Your task to perform on an android device: turn off location Image 0: 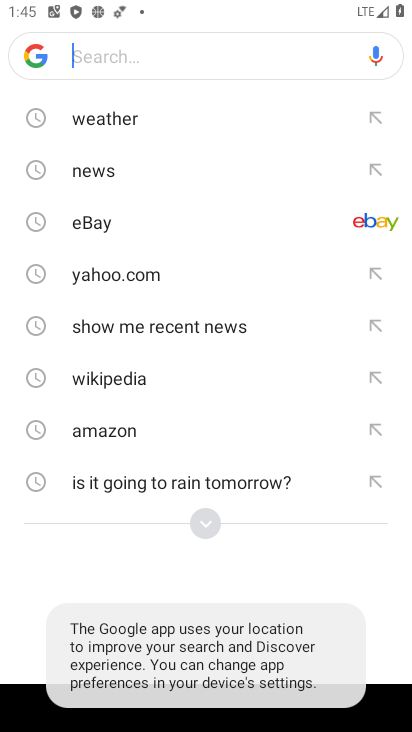
Step 0: press back button
Your task to perform on an android device: turn off location Image 1: 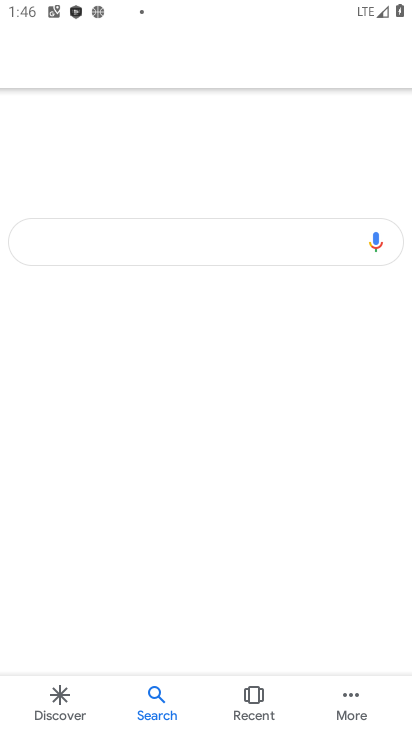
Step 1: press back button
Your task to perform on an android device: turn off location Image 2: 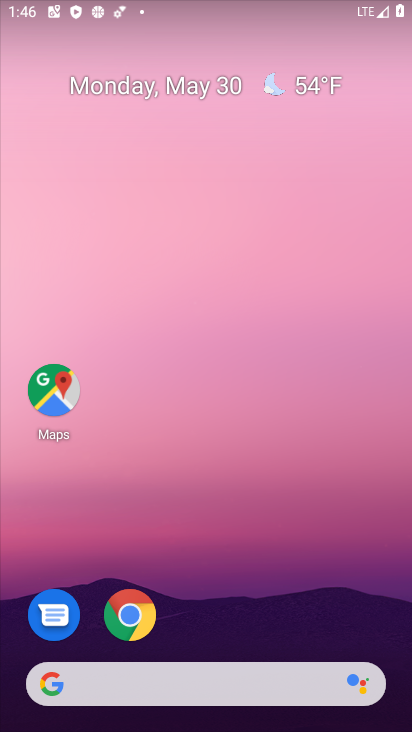
Step 2: drag from (293, 628) to (322, 54)
Your task to perform on an android device: turn off location Image 3: 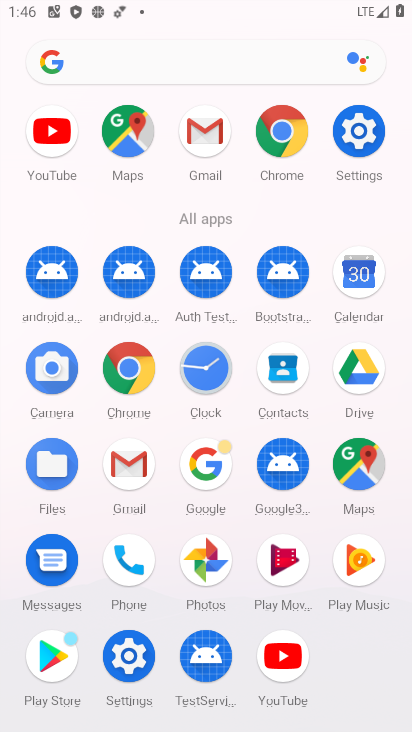
Step 3: click (356, 155)
Your task to perform on an android device: turn off location Image 4: 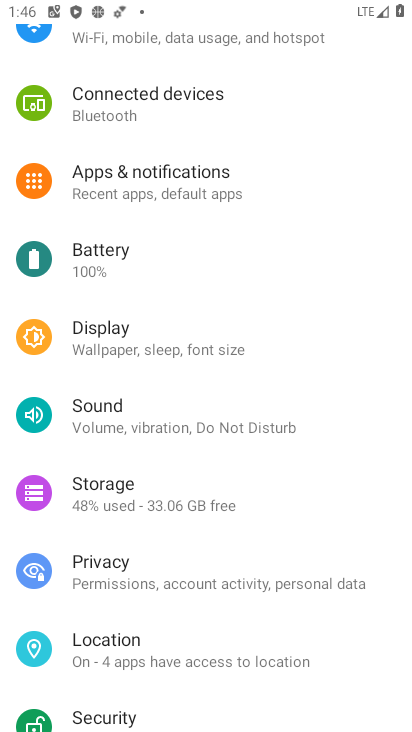
Step 4: click (168, 647)
Your task to perform on an android device: turn off location Image 5: 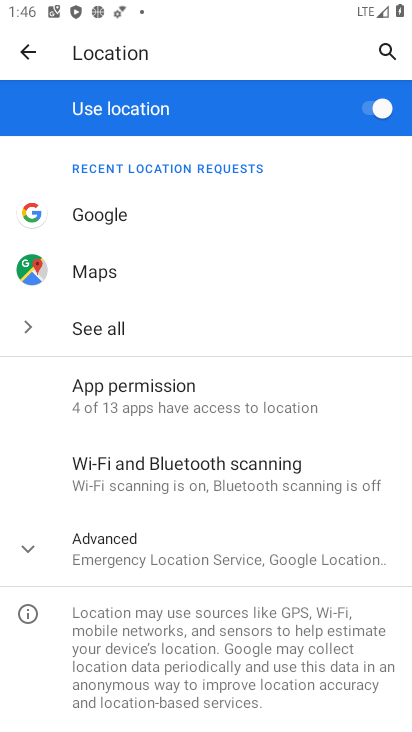
Step 5: click (373, 104)
Your task to perform on an android device: turn off location Image 6: 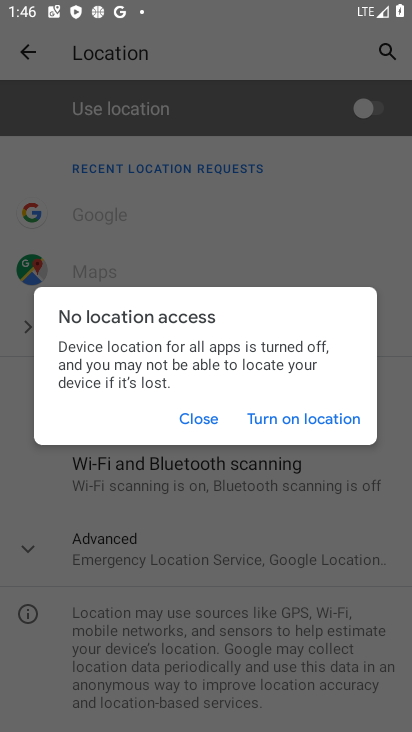
Step 6: click (190, 421)
Your task to perform on an android device: turn off location Image 7: 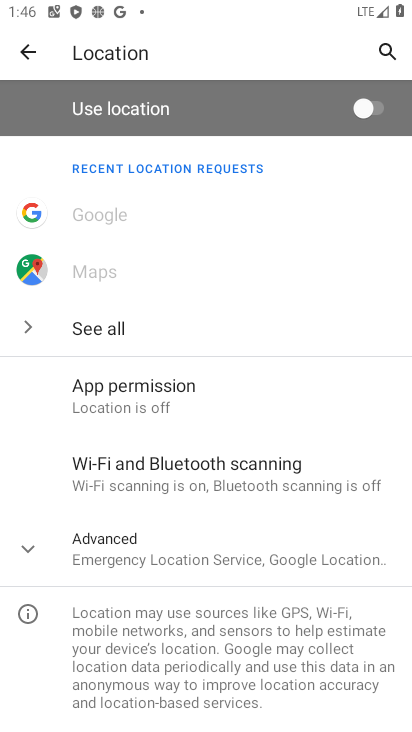
Step 7: task complete